Your task to perform on an android device: Go to internet settings Image 0: 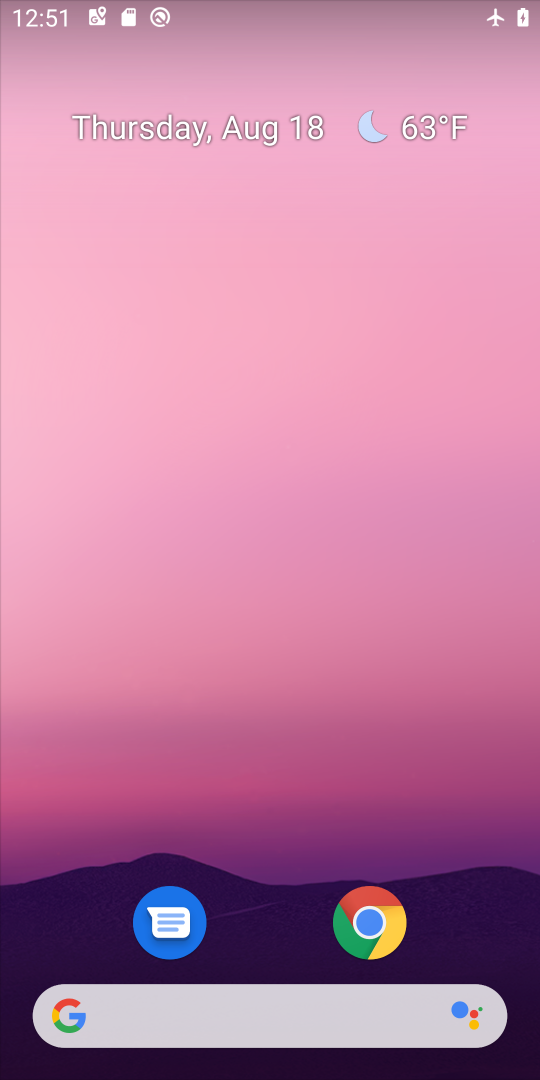
Step 0: drag from (291, 876) to (222, 340)
Your task to perform on an android device: Go to internet settings Image 1: 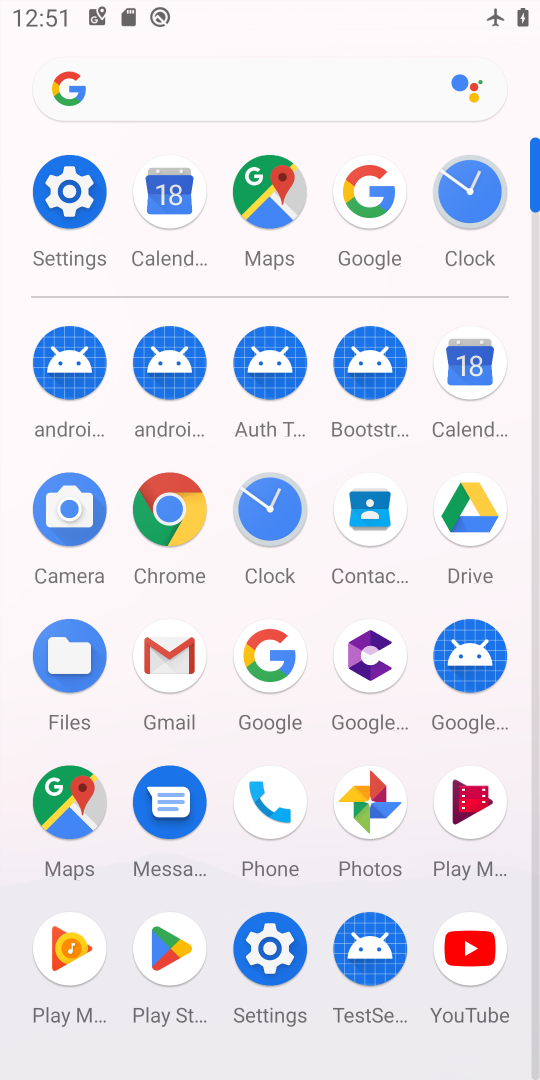
Step 1: click (76, 191)
Your task to perform on an android device: Go to internet settings Image 2: 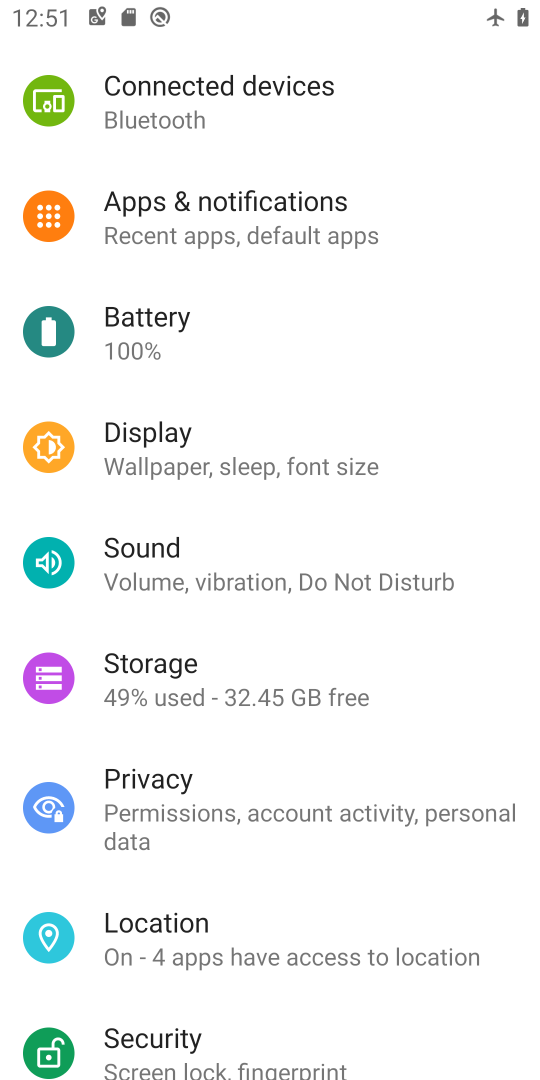
Step 2: drag from (290, 157) to (285, 516)
Your task to perform on an android device: Go to internet settings Image 3: 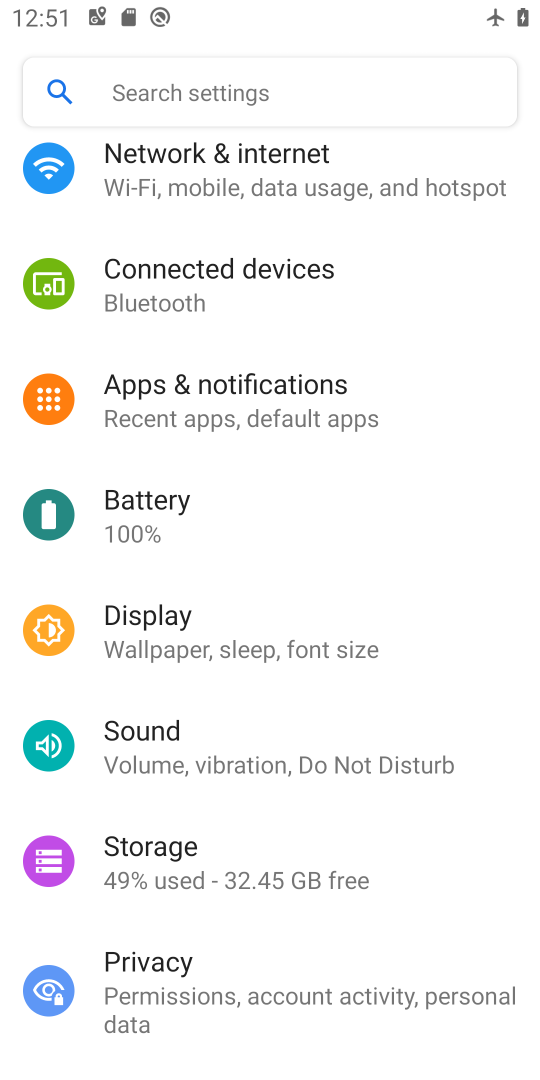
Step 3: click (204, 147)
Your task to perform on an android device: Go to internet settings Image 4: 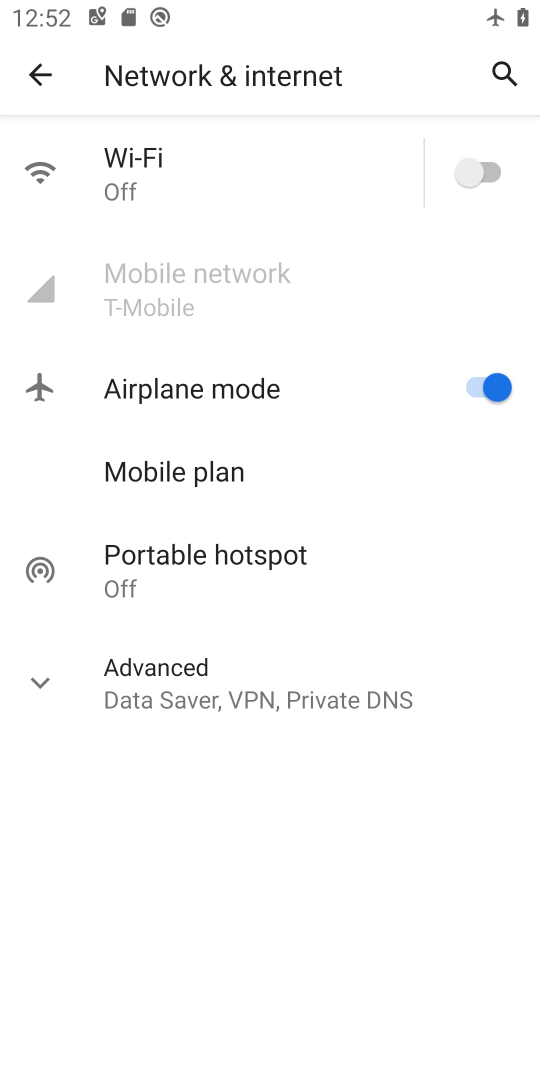
Step 4: task complete